Your task to perform on an android device: add a contact in the contacts app Image 0: 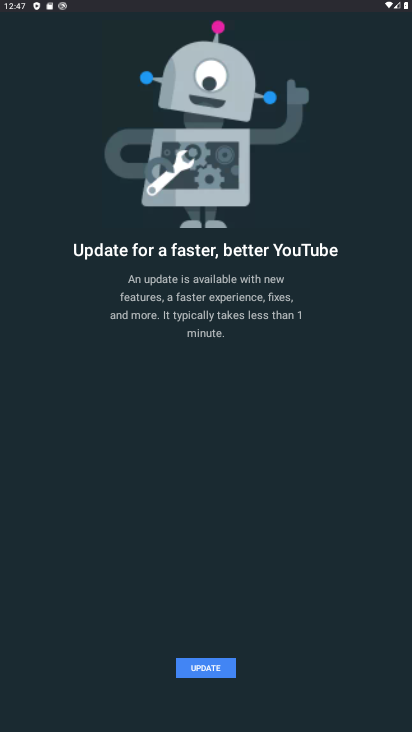
Step 0: press back button
Your task to perform on an android device: add a contact in the contacts app Image 1: 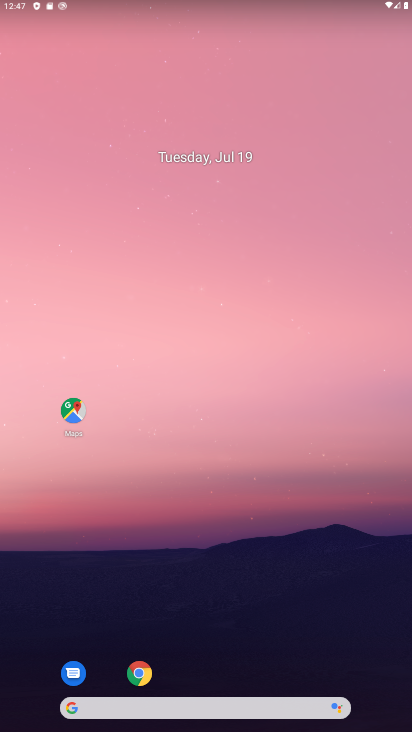
Step 1: click (187, 21)
Your task to perform on an android device: add a contact in the contacts app Image 2: 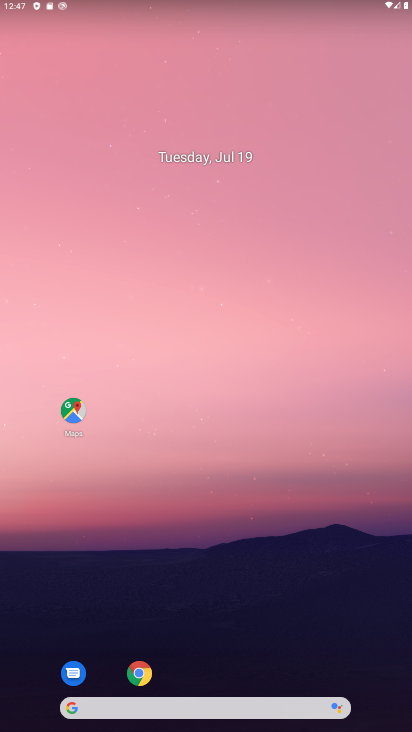
Step 2: click (219, 26)
Your task to perform on an android device: add a contact in the contacts app Image 3: 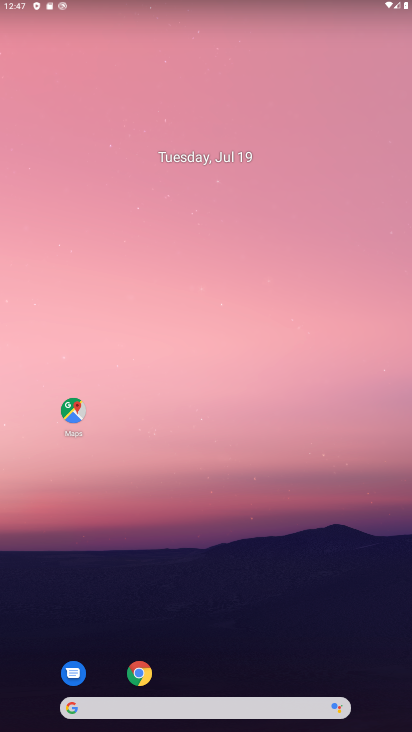
Step 3: drag from (281, 660) to (173, 173)
Your task to perform on an android device: add a contact in the contacts app Image 4: 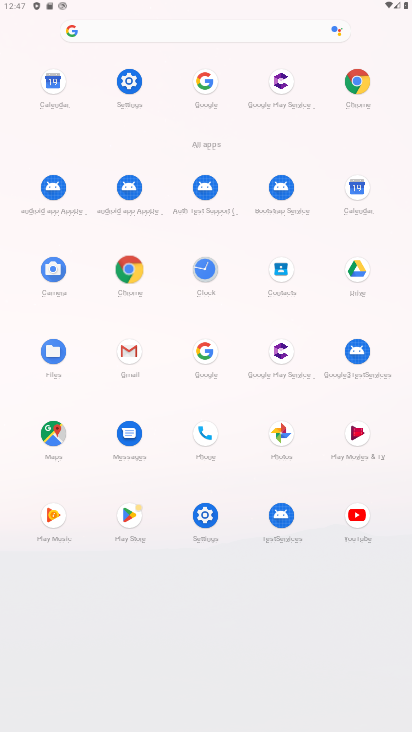
Step 4: click (281, 261)
Your task to perform on an android device: add a contact in the contacts app Image 5: 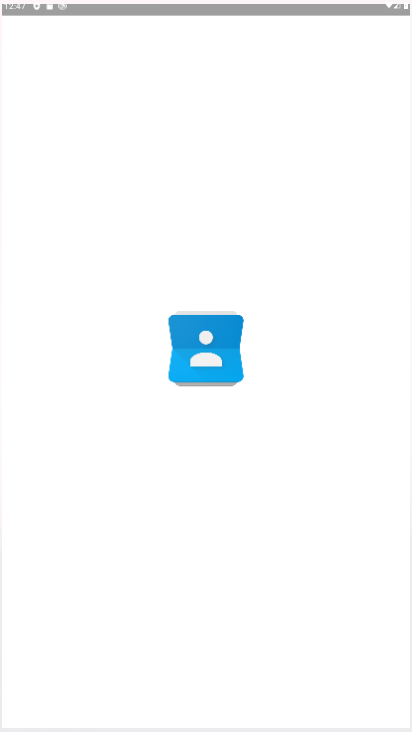
Step 5: click (289, 267)
Your task to perform on an android device: add a contact in the contacts app Image 6: 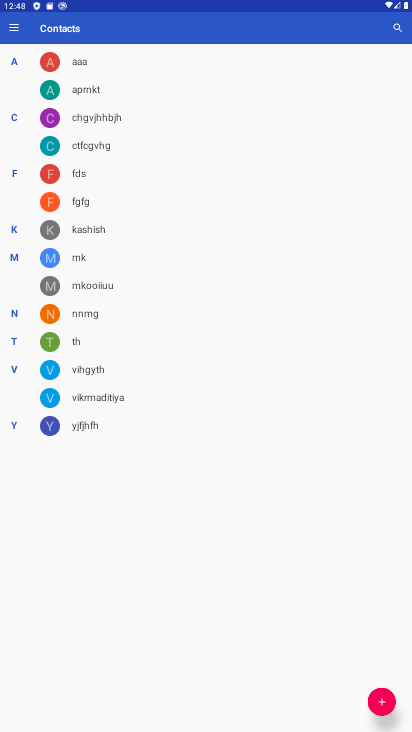
Step 6: click (386, 703)
Your task to perform on an android device: add a contact in the contacts app Image 7: 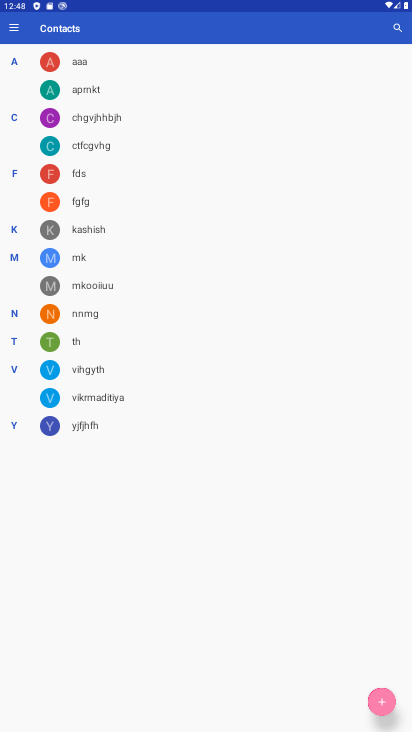
Step 7: click (386, 703)
Your task to perform on an android device: add a contact in the contacts app Image 8: 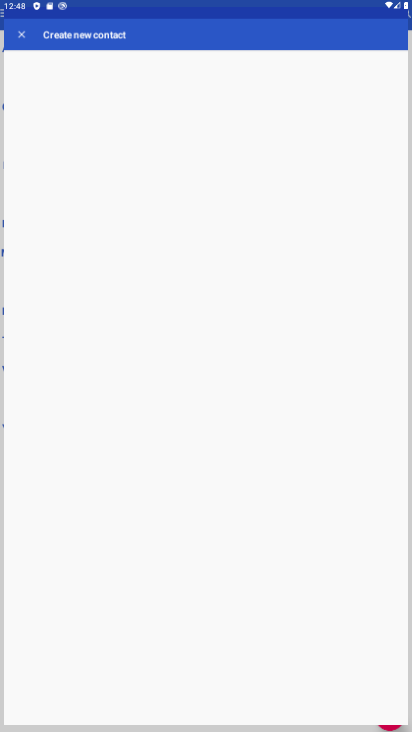
Step 8: click (392, 700)
Your task to perform on an android device: add a contact in the contacts app Image 9: 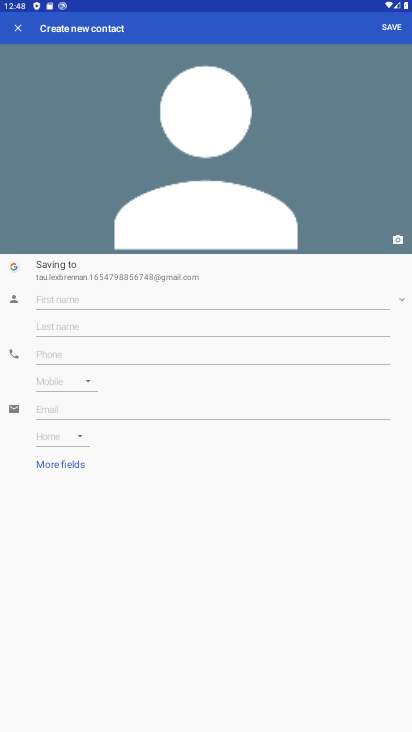
Step 9: click (407, 701)
Your task to perform on an android device: add a contact in the contacts app Image 10: 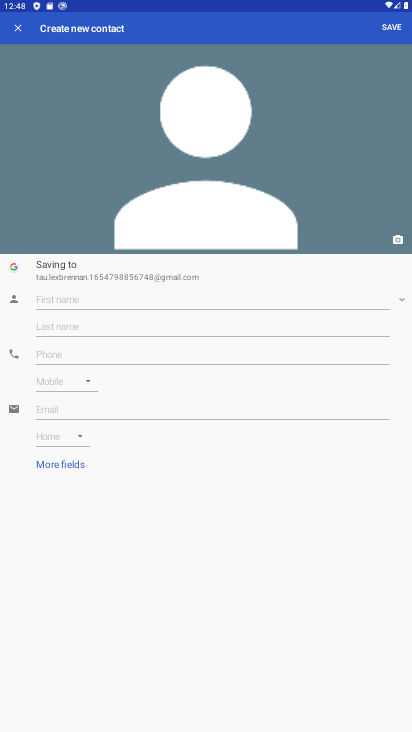
Step 10: click (48, 296)
Your task to perform on an android device: add a contact in the contacts app Image 11: 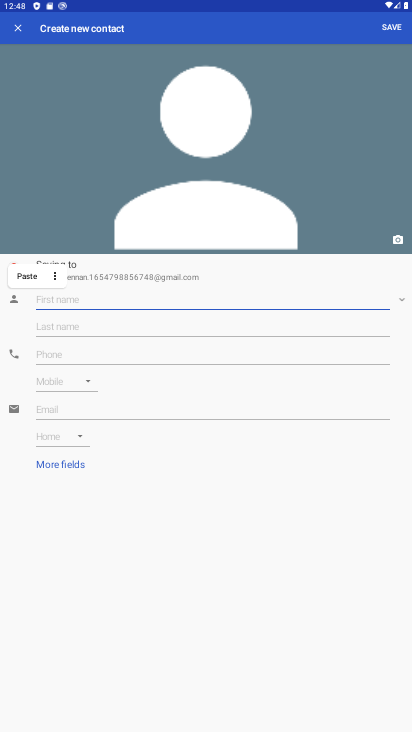
Step 11: type "hmjgyjghj"
Your task to perform on an android device: add a contact in the contacts app Image 12: 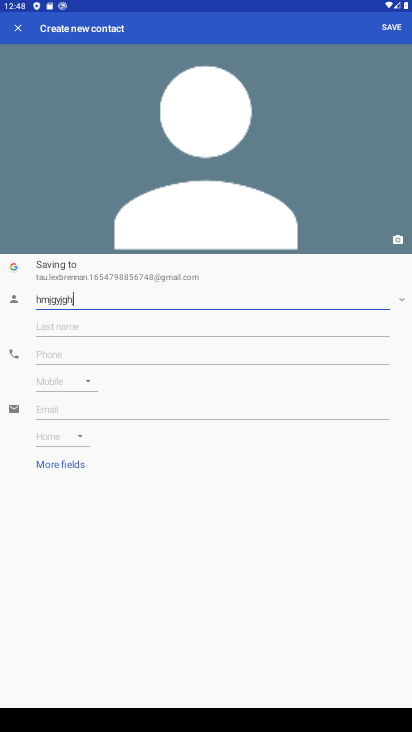
Step 12: click (46, 355)
Your task to perform on an android device: add a contact in the contacts app Image 13: 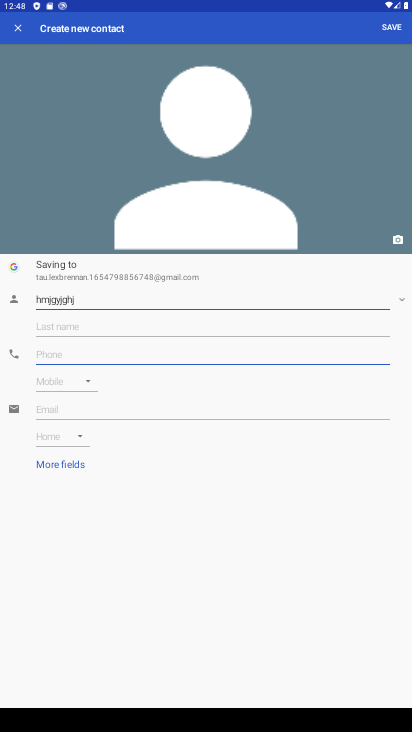
Step 13: click (46, 355)
Your task to perform on an android device: add a contact in the contacts app Image 14: 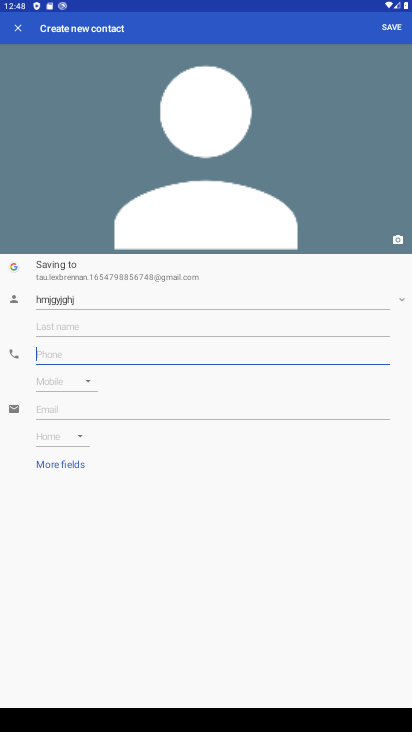
Step 14: click (46, 355)
Your task to perform on an android device: add a contact in the contacts app Image 15: 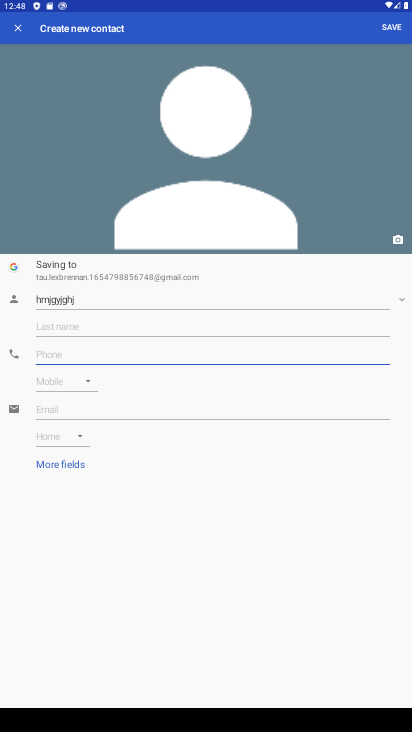
Step 15: click (50, 352)
Your task to perform on an android device: add a contact in the contacts app Image 16: 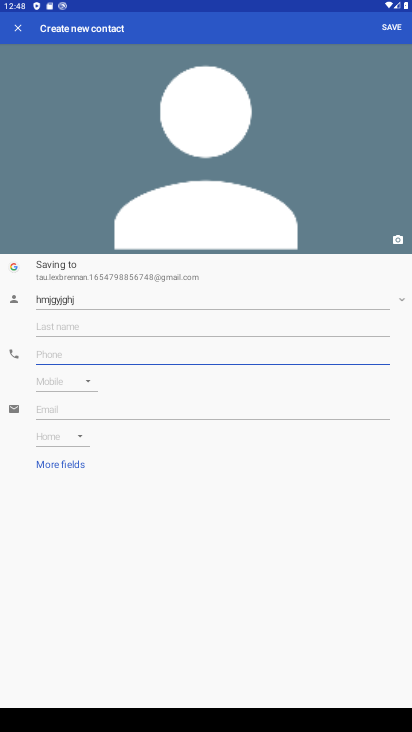
Step 16: type "765656454554"
Your task to perform on an android device: add a contact in the contacts app Image 17: 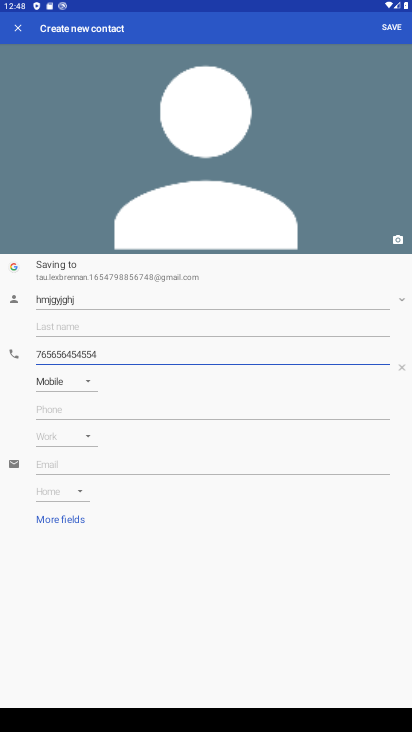
Step 17: click (381, 25)
Your task to perform on an android device: add a contact in the contacts app Image 18: 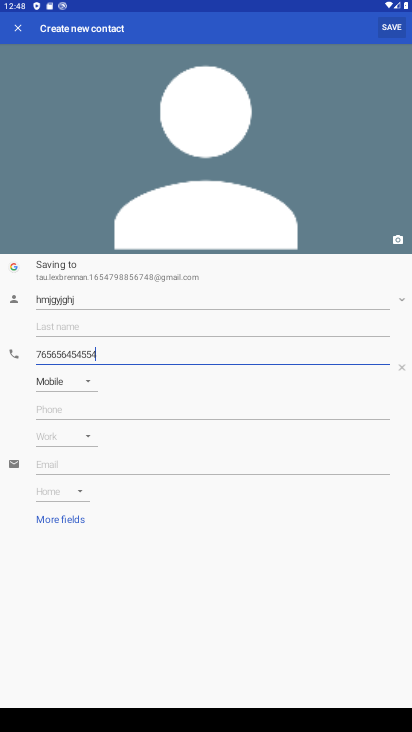
Step 18: click (383, 25)
Your task to perform on an android device: add a contact in the contacts app Image 19: 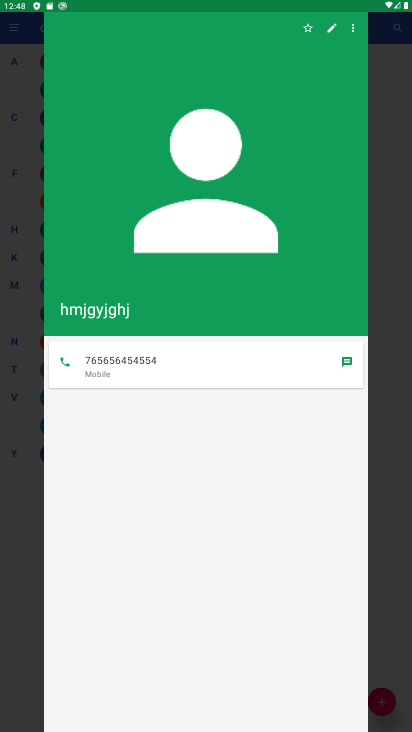
Step 19: task complete